Your task to perform on an android device: open app "Google Translate" (install if not already installed) Image 0: 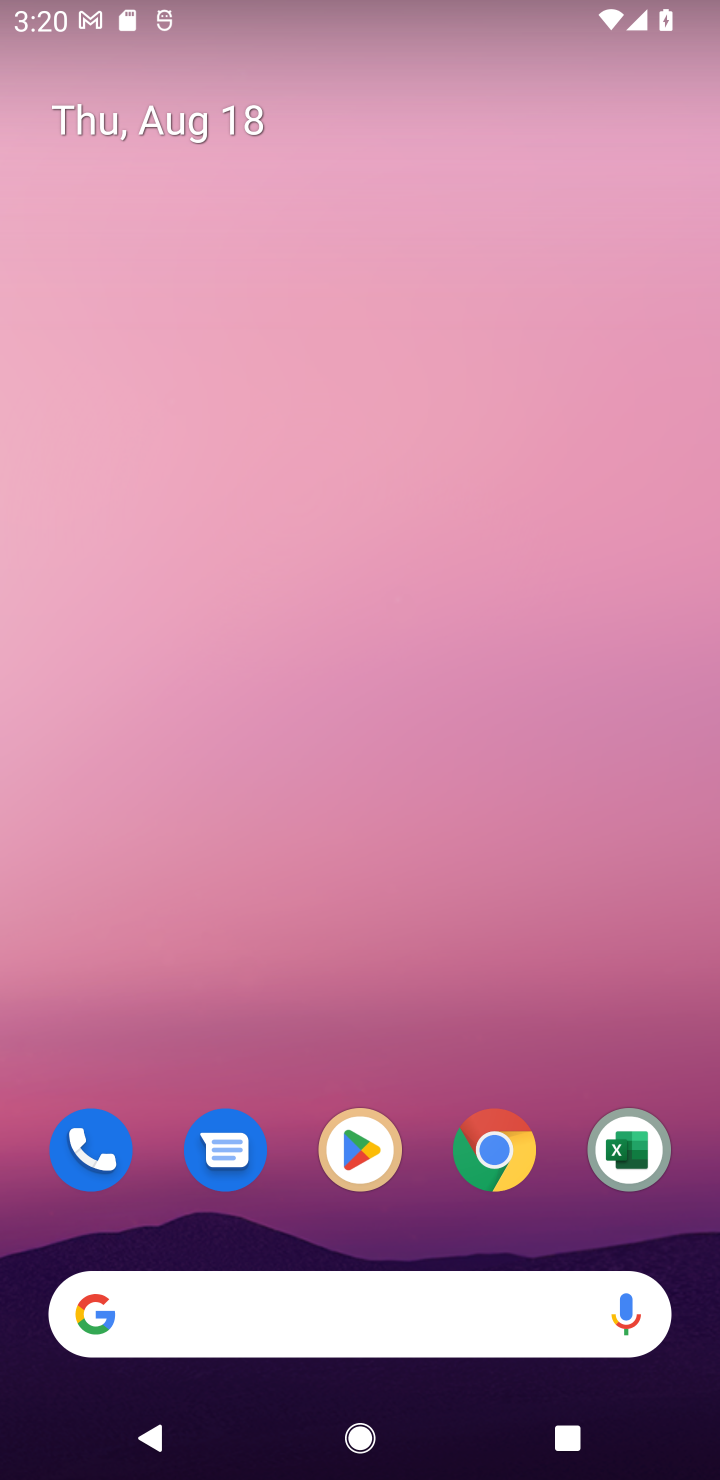
Step 0: click (363, 1149)
Your task to perform on an android device: open app "Google Translate" (install if not already installed) Image 1: 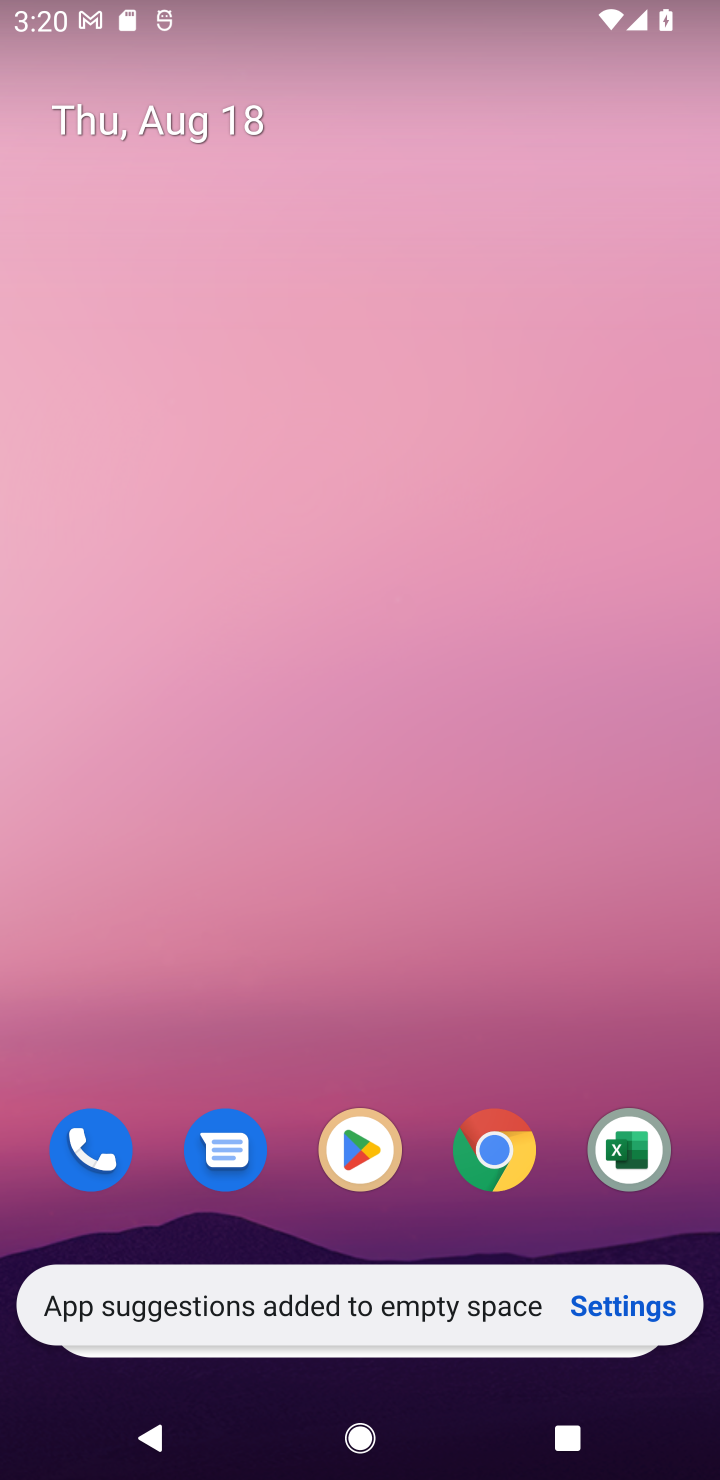
Step 1: click (363, 1149)
Your task to perform on an android device: open app "Google Translate" (install if not already installed) Image 2: 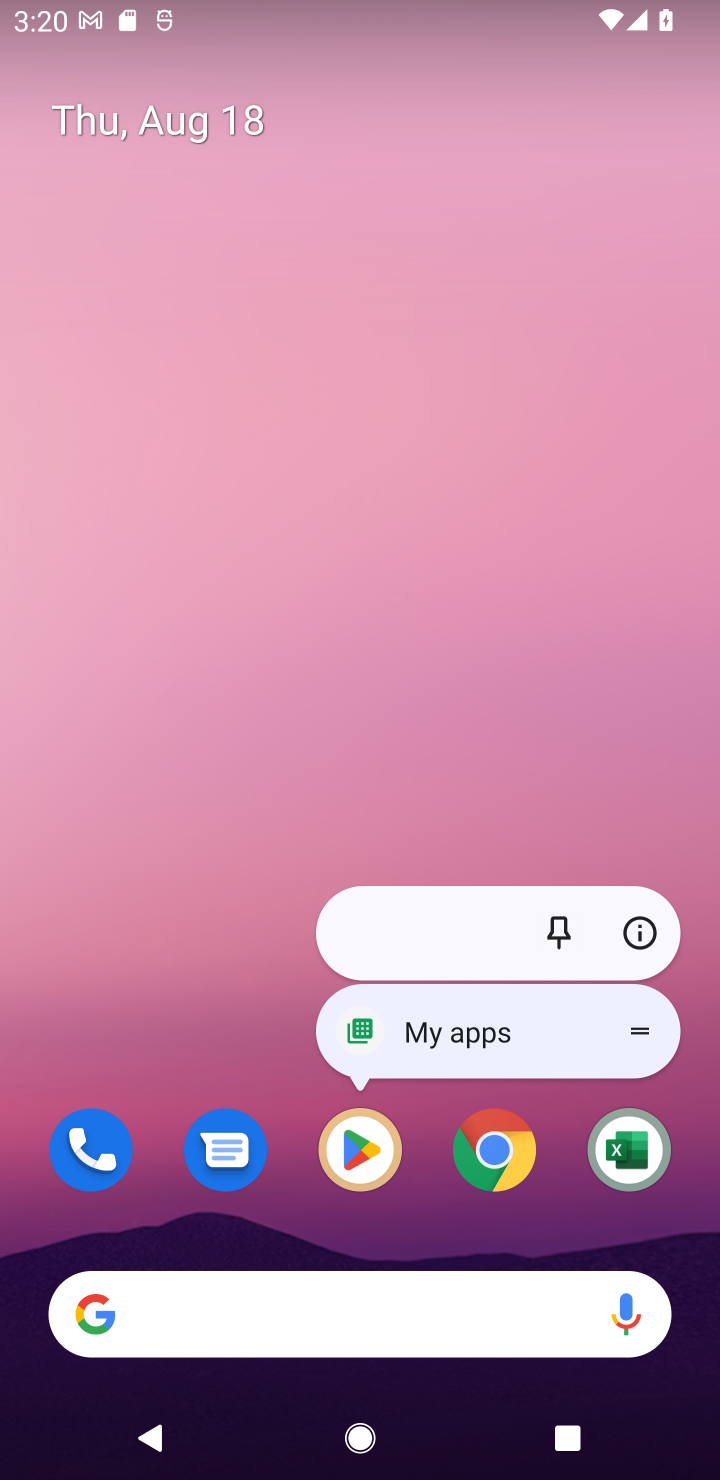
Step 2: click (417, 1213)
Your task to perform on an android device: open app "Google Translate" (install if not already installed) Image 3: 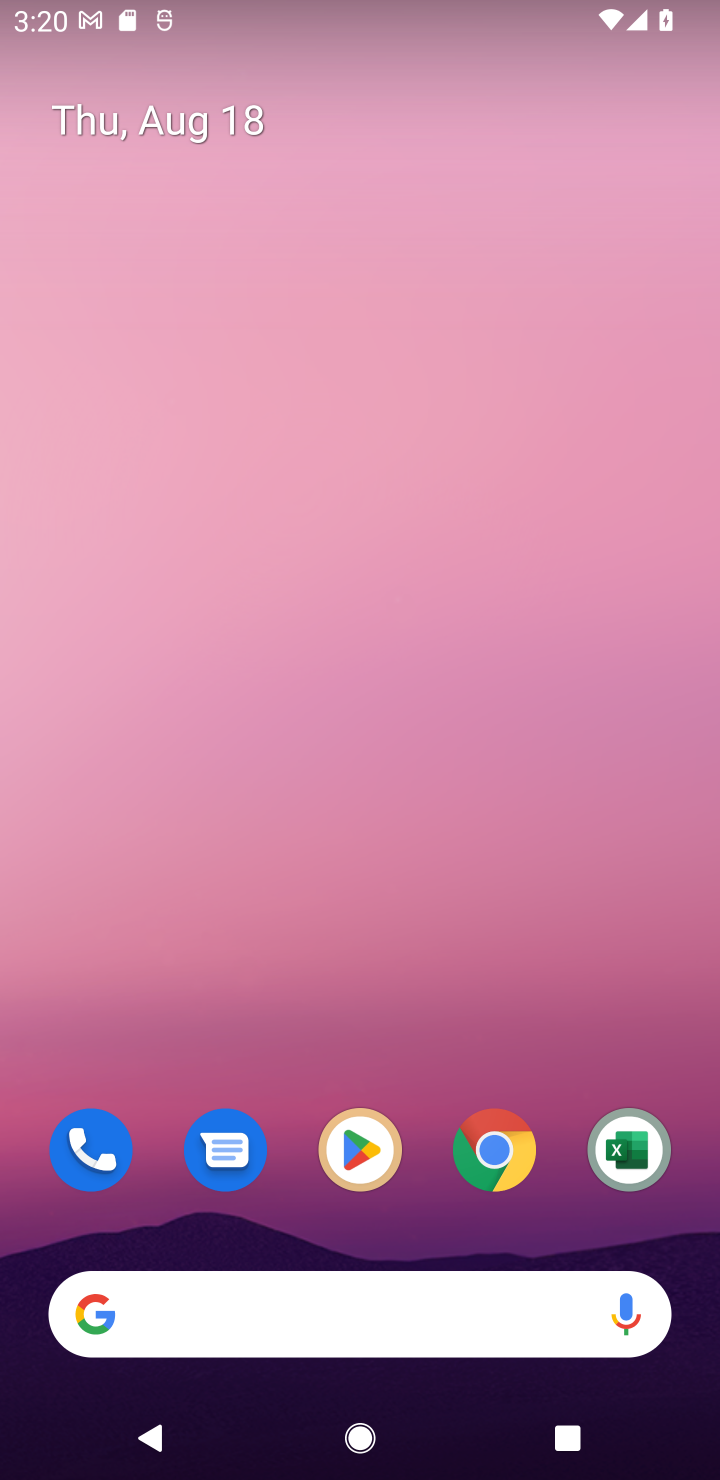
Step 3: click (365, 1148)
Your task to perform on an android device: open app "Google Translate" (install if not already installed) Image 4: 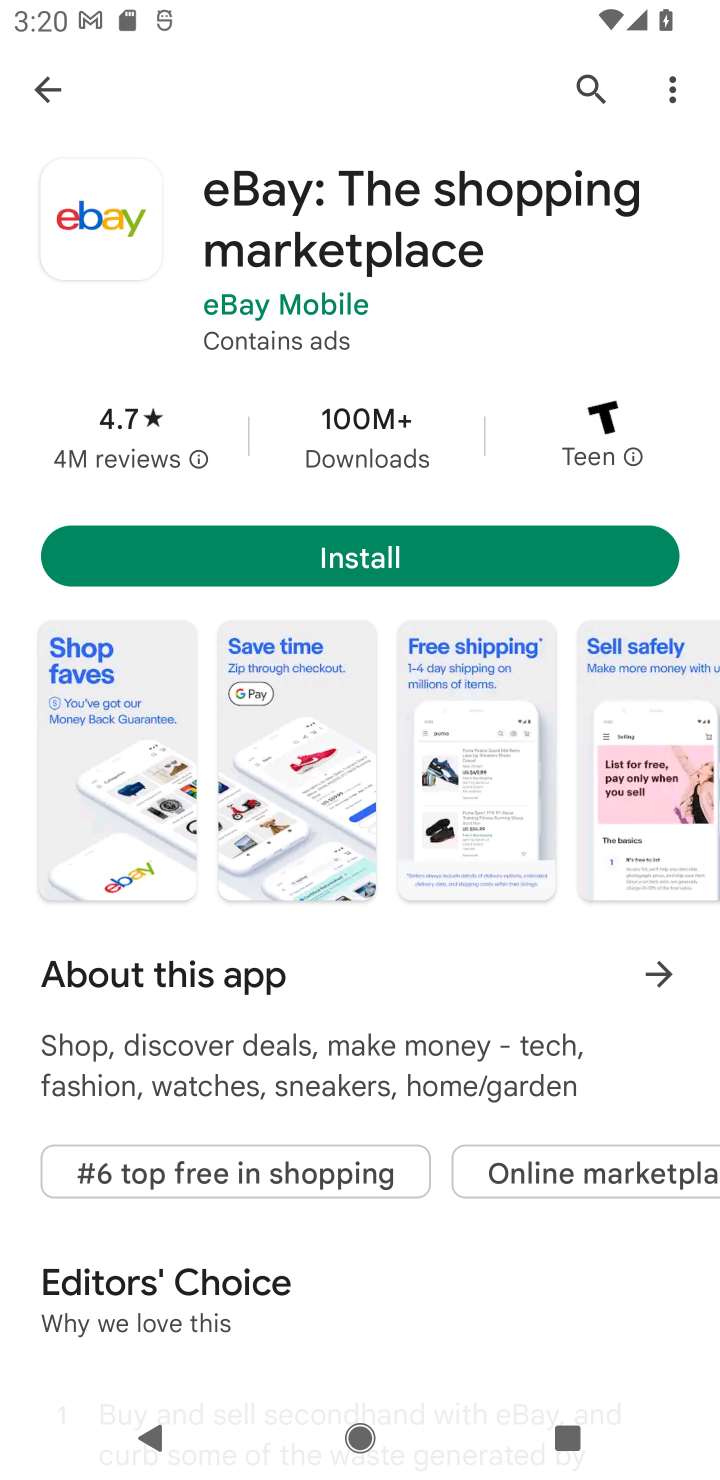
Step 4: click (587, 87)
Your task to perform on an android device: open app "Google Translate" (install if not already installed) Image 5: 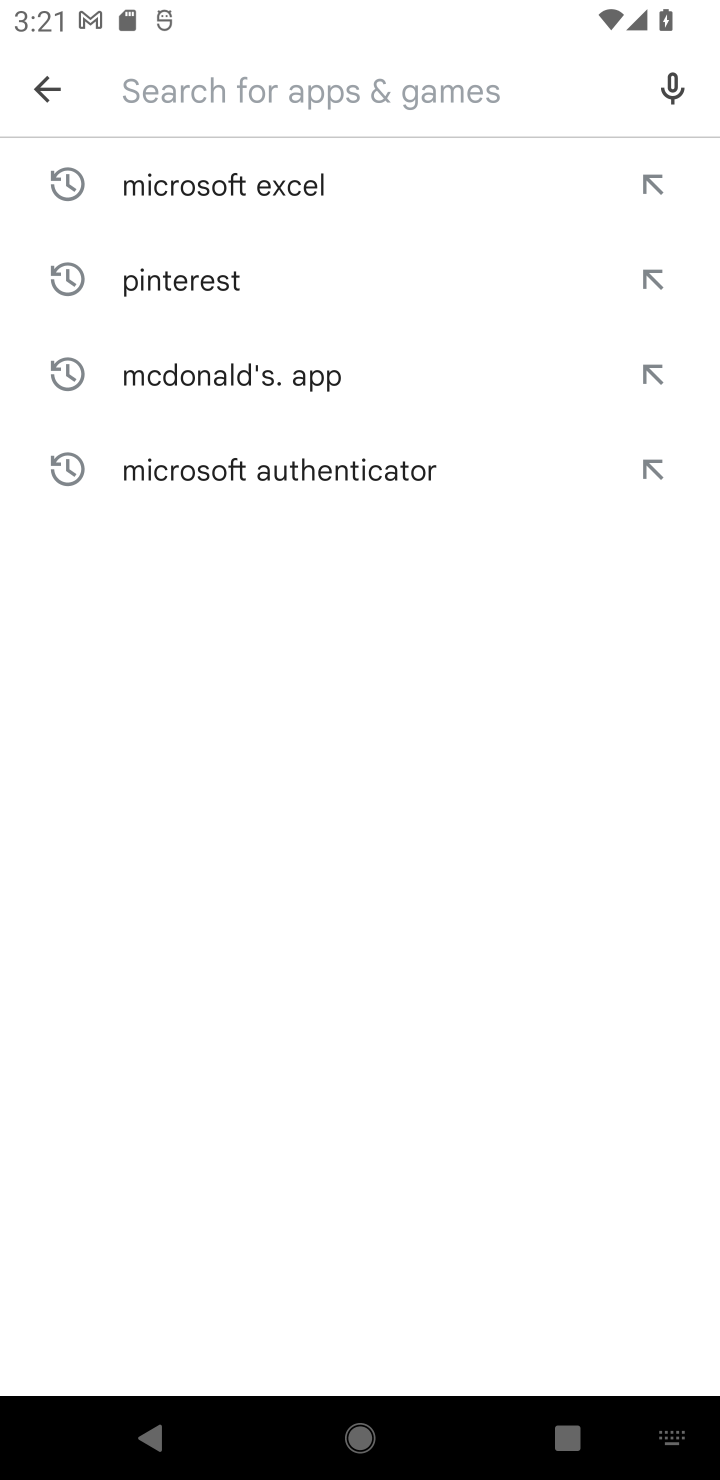
Step 5: type "Google Translate"
Your task to perform on an android device: open app "Google Translate" (install if not already installed) Image 6: 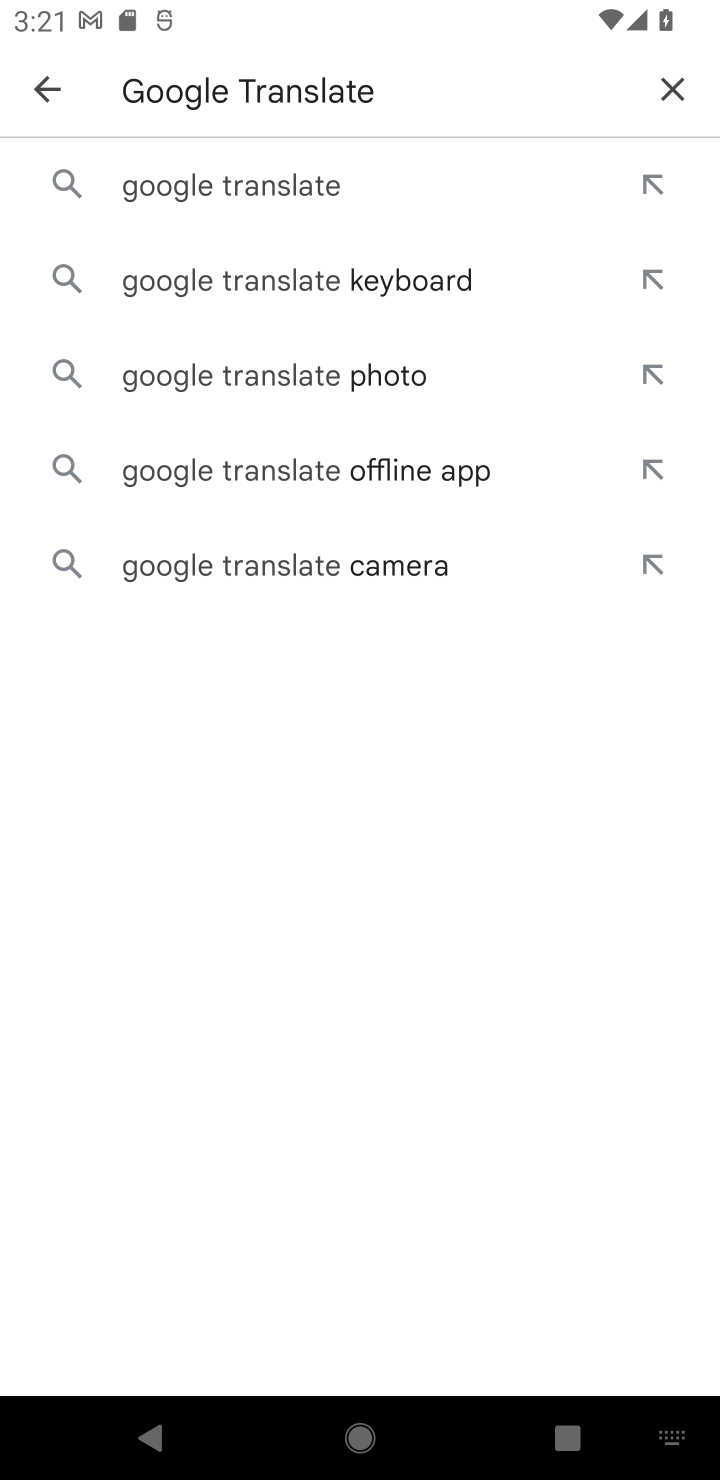
Step 6: click (244, 198)
Your task to perform on an android device: open app "Google Translate" (install if not already installed) Image 7: 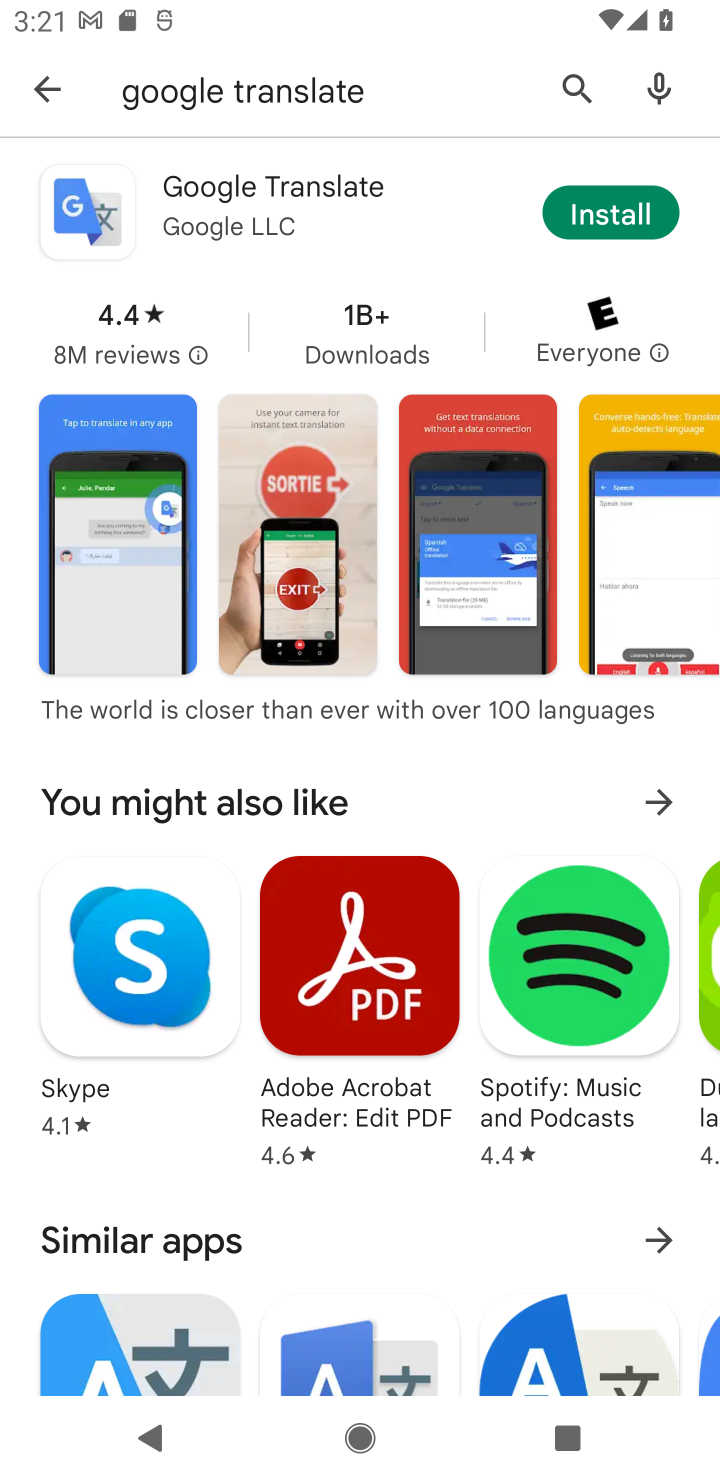
Step 7: click (612, 211)
Your task to perform on an android device: open app "Google Translate" (install if not already installed) Image 8: 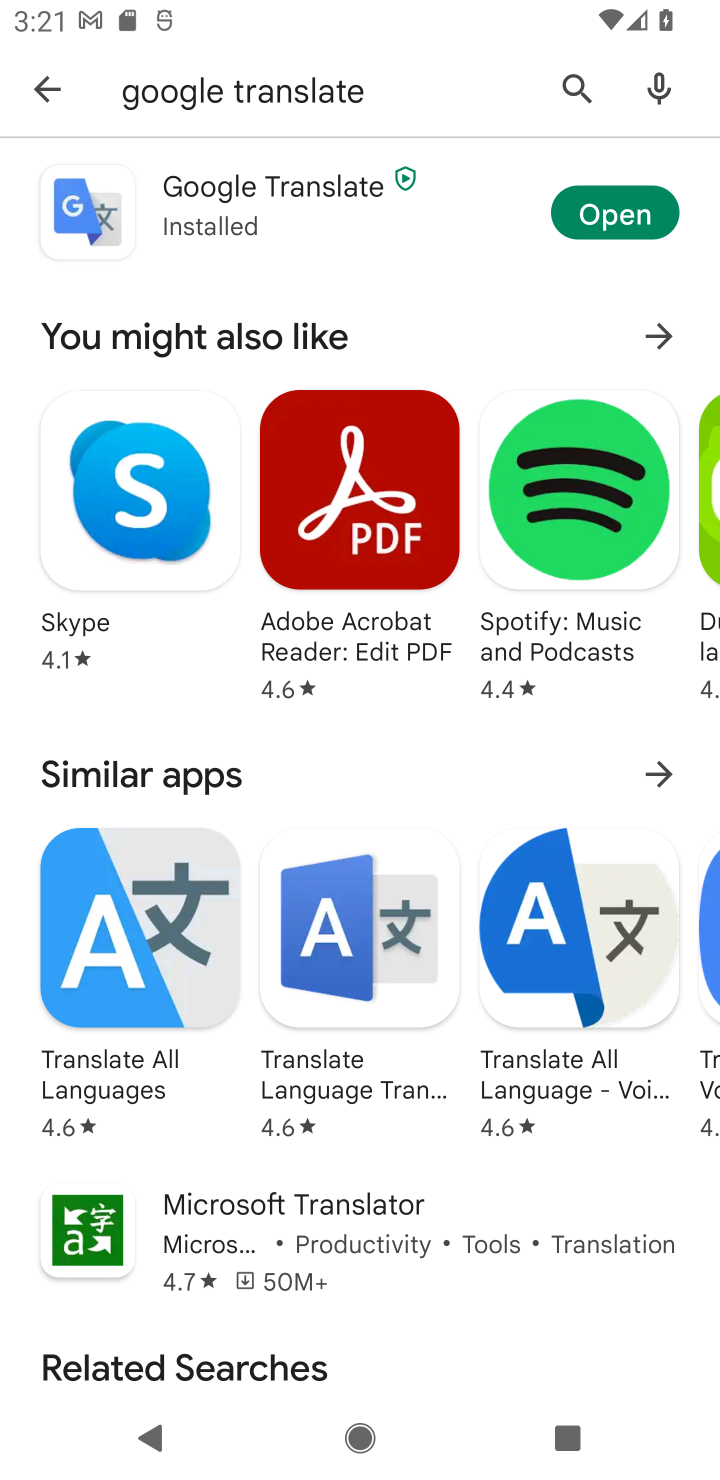
Step 8: click (601, 217)
Your task to perform on an android device: open app "Google Translate" (install if not already installed) Image 9: 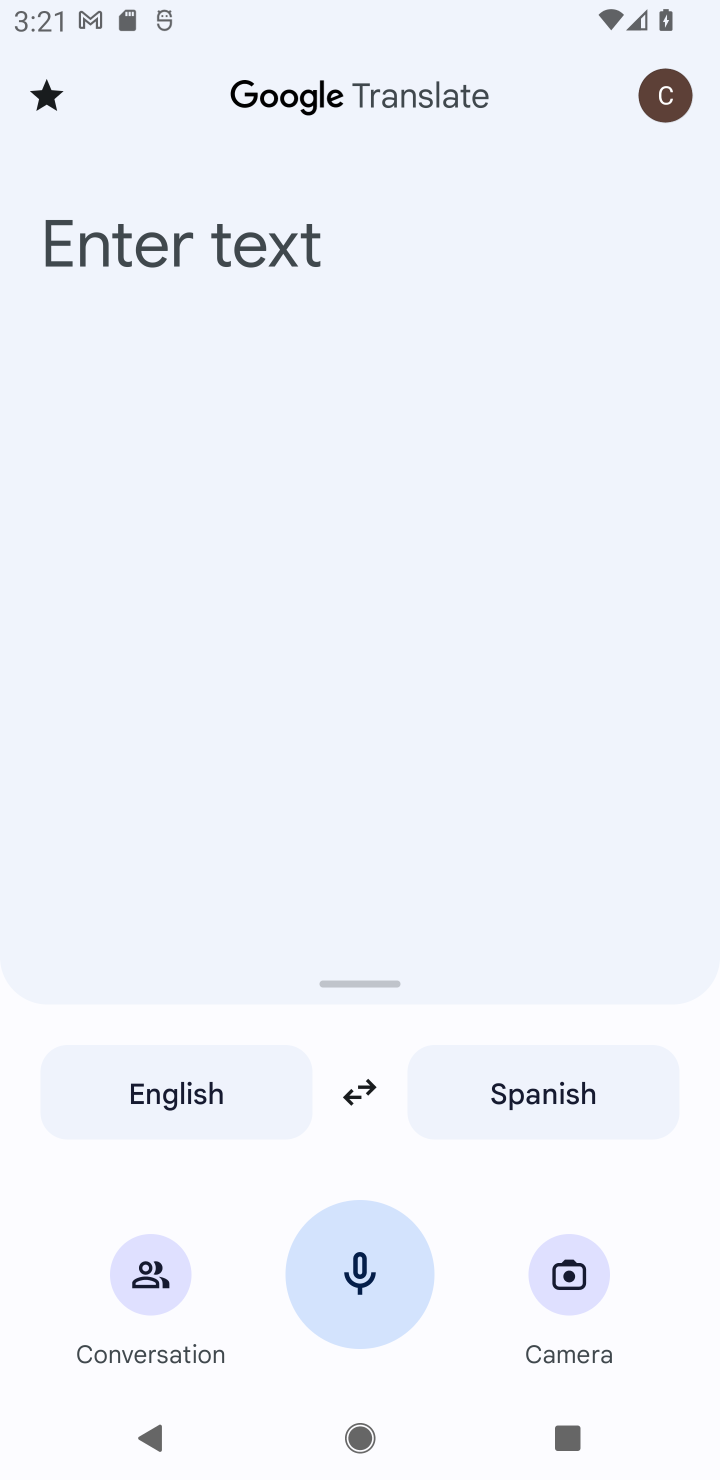
Step 9: task complete